Your task to perform on an android device: Open Yahoo.com Image 0: 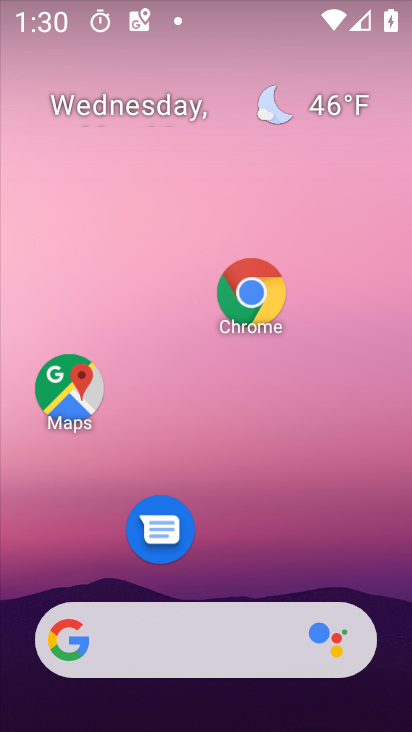
Step 0: click (249, 297)
Your task to perform on an android device: Open Yahoo.com Image 1: 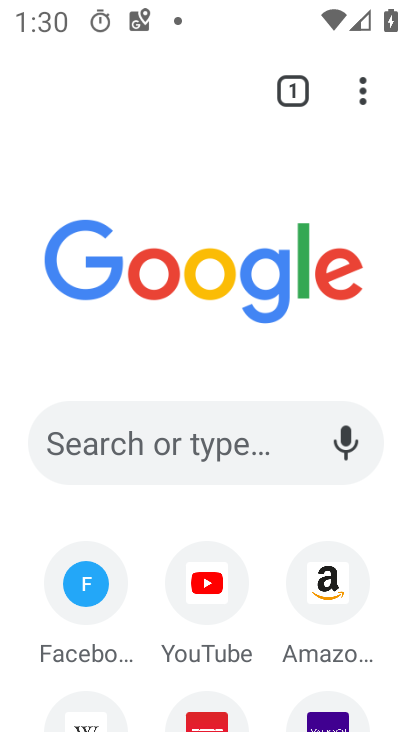
Step 1: drag from (292, 666) to (295, 298)
Your task to perform on an android device: Open Yahoo.com Image 2: 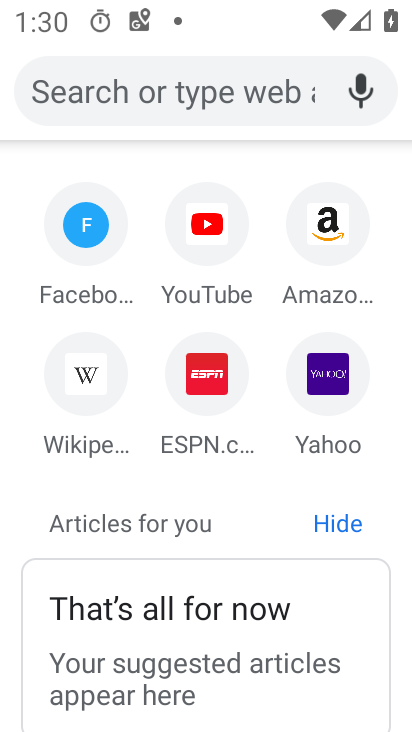
Step 2: click (325, 358)
Your task to perform on an android device: Open Yahoo.com Image 3: 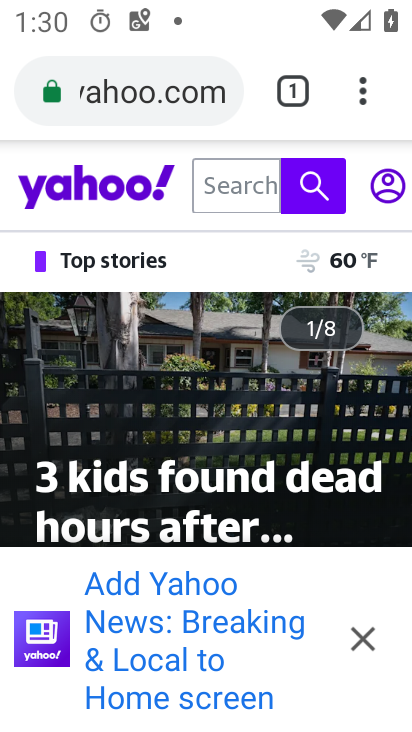
Step 3: task complete